Your task to perform on an android device: turn off airplane mode Image 0: 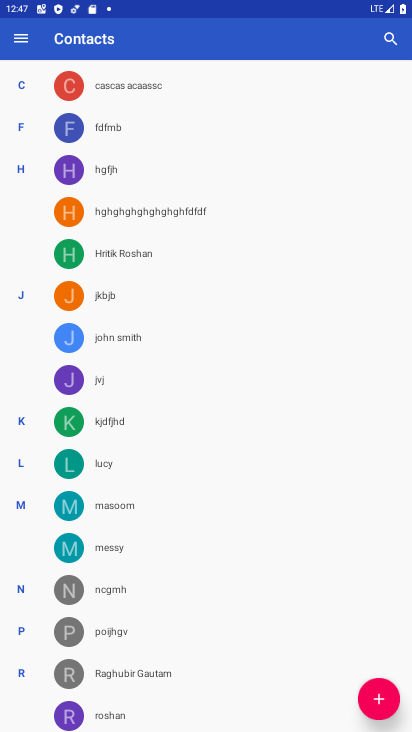
Step 0: press home button
Your task to perform on an android device: turn off airplane mode Image 1: 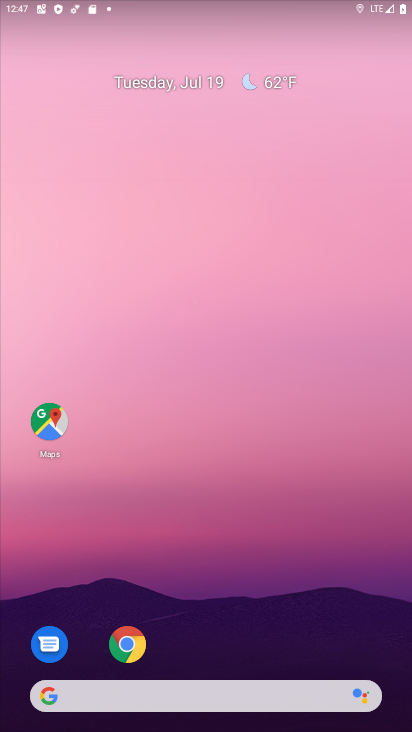
Step 1: drag from (230, 565) to (169, 97)
Your task to perform on an android device: turn off airplane mode Image 2: 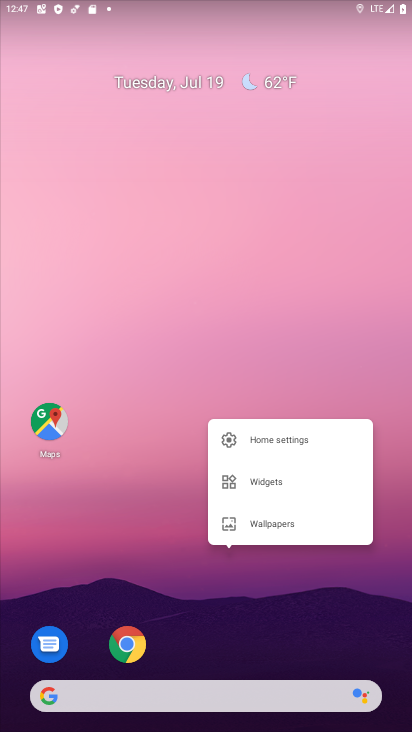
Step 2: click (101, 577)
Your task to perform on an android device: turn off airplane mode Image 3: 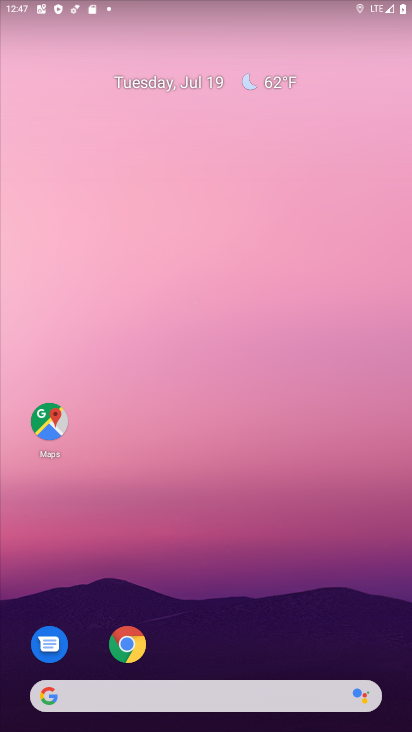
Step 3: drag from (227, 613) to (229, 190)
Your task to perform on an android device: turn off airplane mode Image 4: 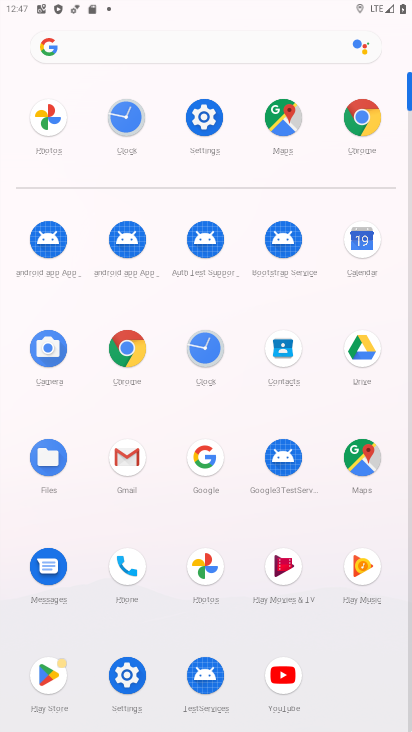
Step 4: click (206, 111)
Your task to perform on an android device: turn off airplane mode Image 5: 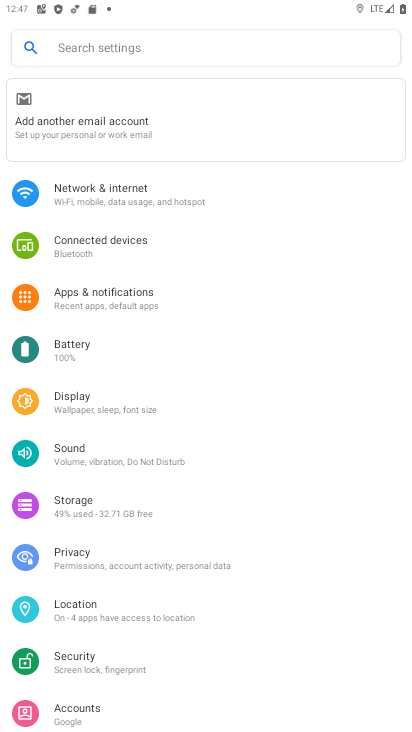
Step 5: click (102, 184)
Your task to perform on an android device: turn off airplane mode Image 6: 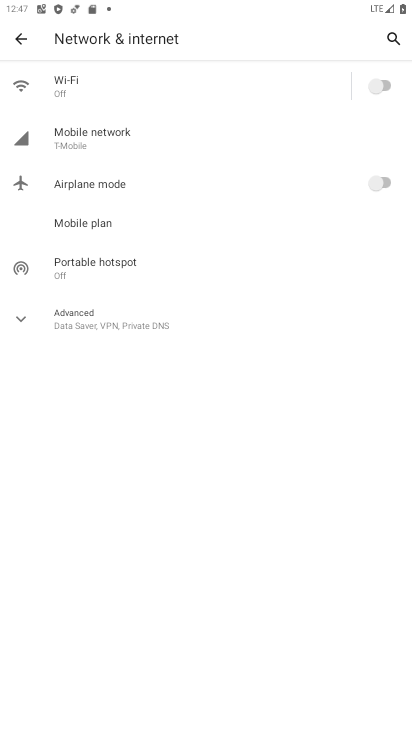
Step 6: task complete